Your task to perform on an android device: Show me the alarms in the clock app Image 0: 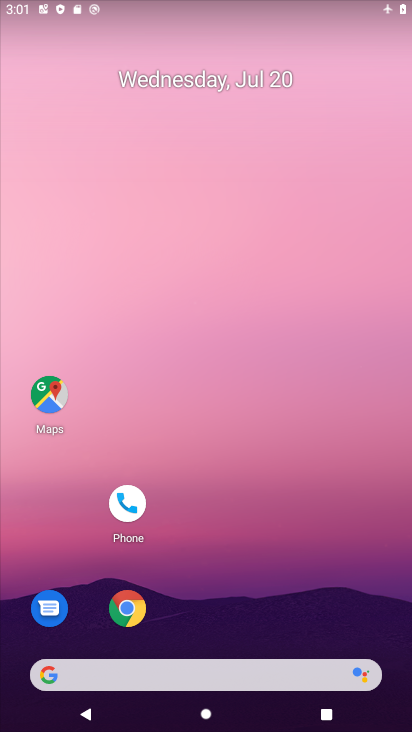
Step 0: drag from (294, 675) to (319, 156)
Your task to perform on an android device: Show me the alarms in the clock app Image 1: 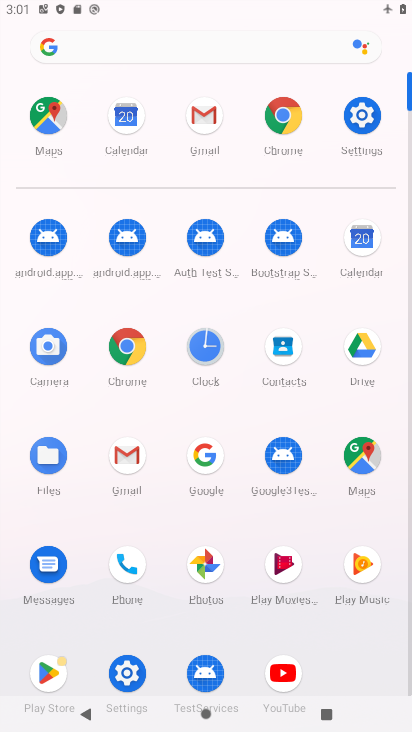
Step 1: click (194, 344)
Your task to perform on an android device: Show me the alarms in the clock app Image 2: 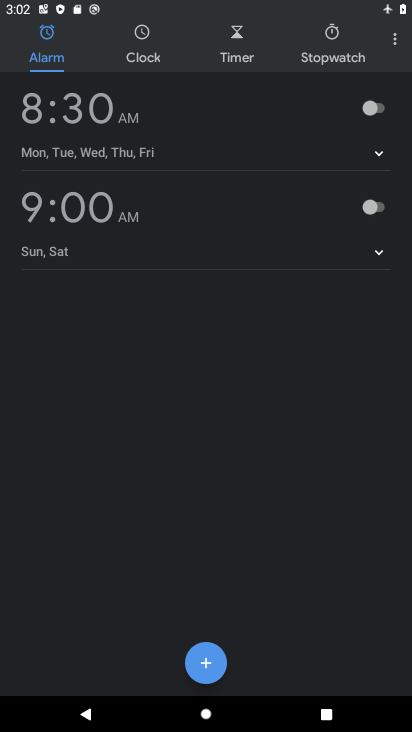
Step 2: task complete